Your task to perform on an android device: Open eBay Image 0: 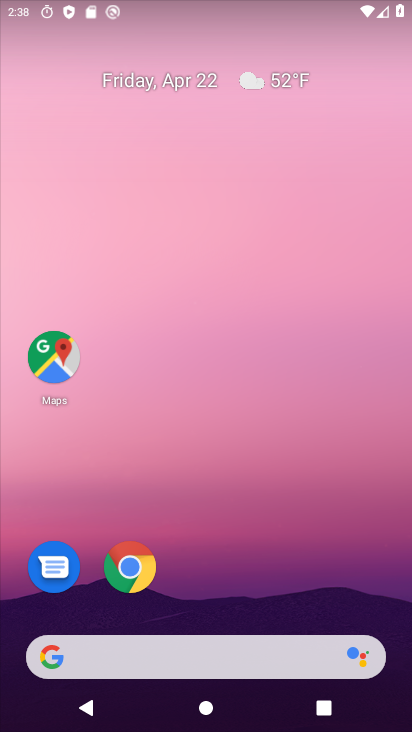
Step 0: click (135, 562)
Your task to perform on an android device: Open eBay Image 1: 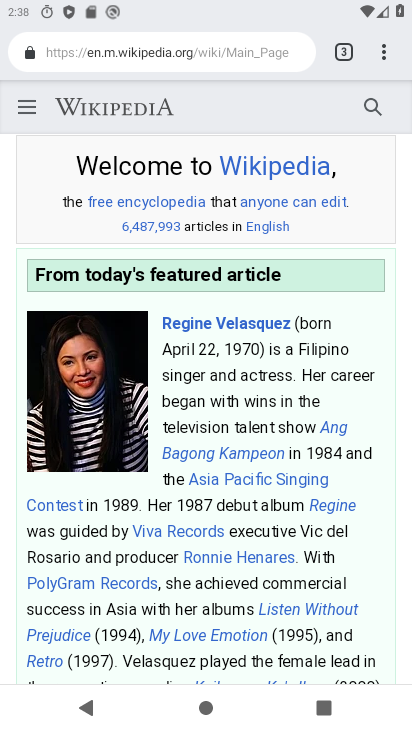
Step 1: click (343, 54)
Your task to perform on an android device: Open eBay Image 2: 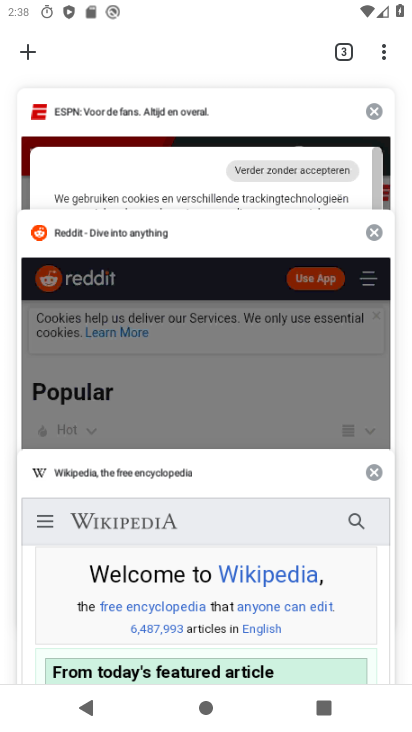
Step 2: click (32, 53)
Your task to perform on an android device: Open eBay Image 3: 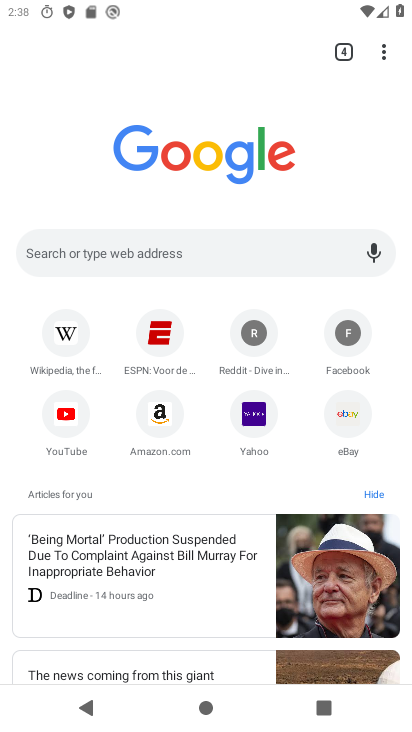
Step 3: click (350, 414)
Your task to perform on an android device: Open eBay Image 4: 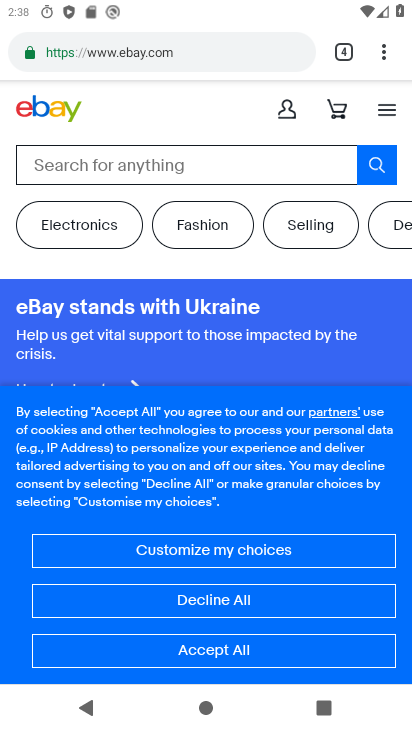
Step 4: task complete